Your task to perform on an android device: toggle translation in the chrome app Image 0: 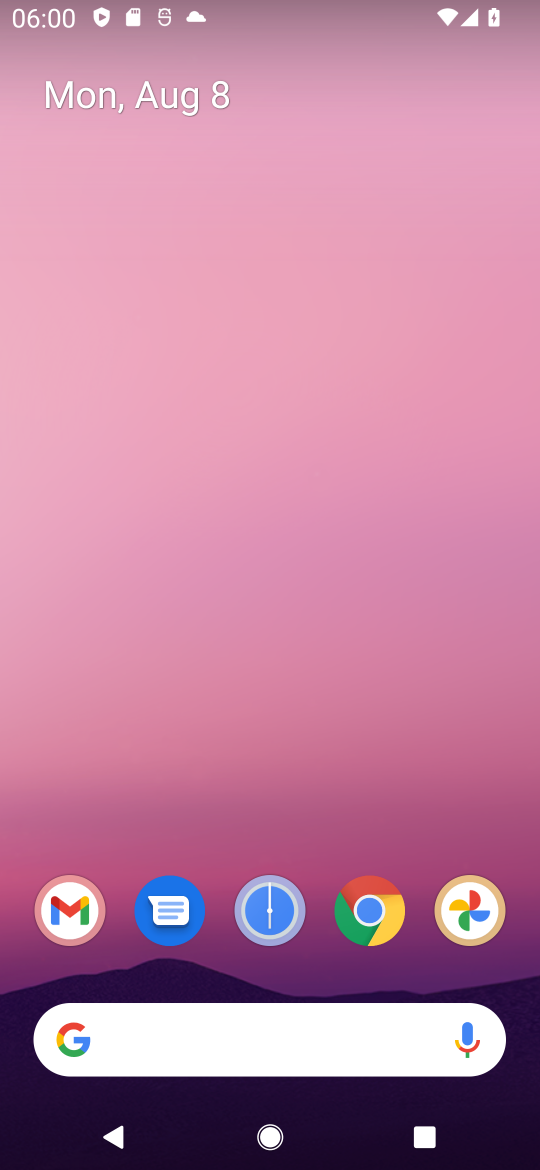
Step 0: click (371, 911)
Your task to perform on an android device: toggle translation in the chrome app Image 1: 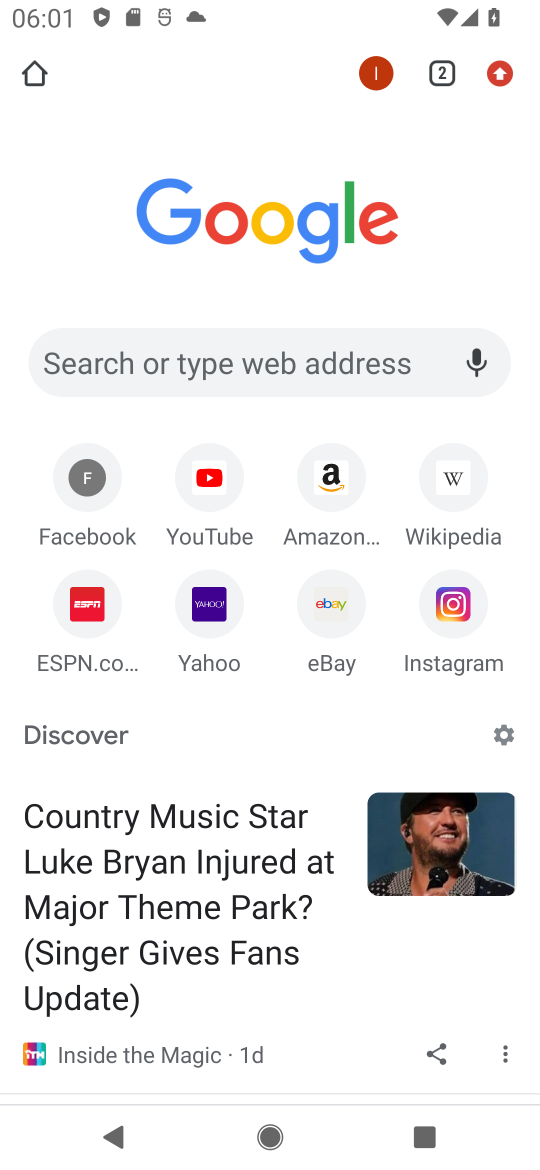
Step 1: click (499, 76)
Your task to perform on an android device: toggle translation in the chrome app Image 2: 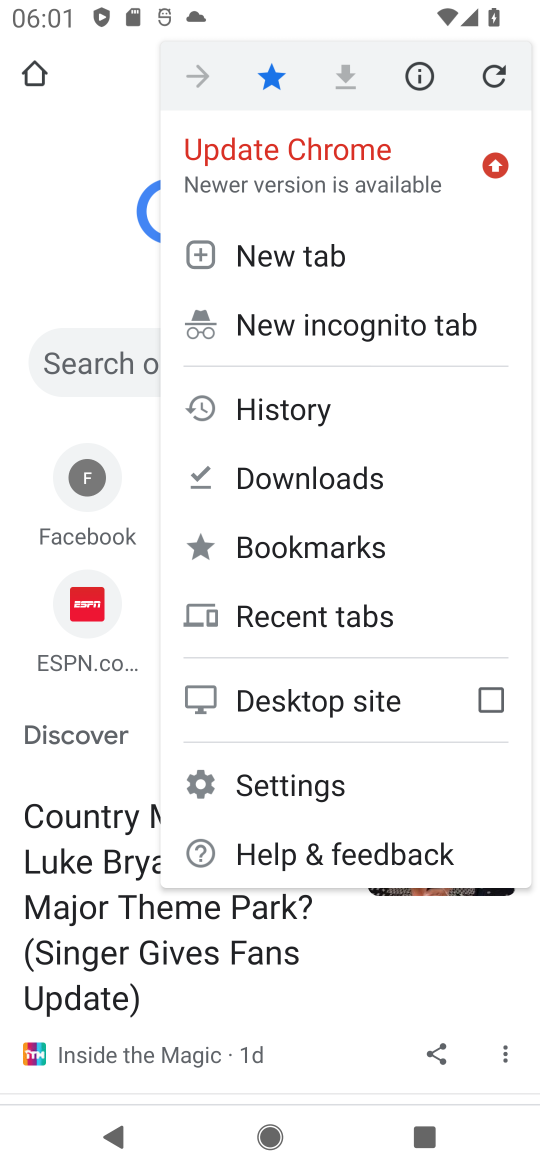
Step 2: click (281, 783)
Your task to perform on an android device: toggle translation in the chrome app Image 3: 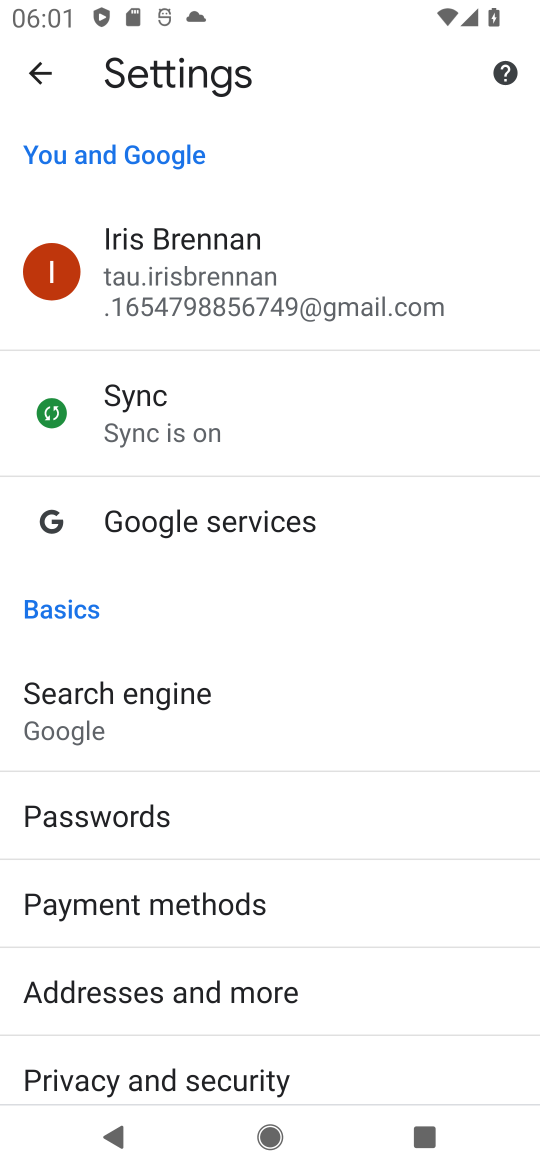
Step 3: drag from (168, 957) to (271, 798)
Your task to perform on an android device: toggle translation in the chrome app Image 4: 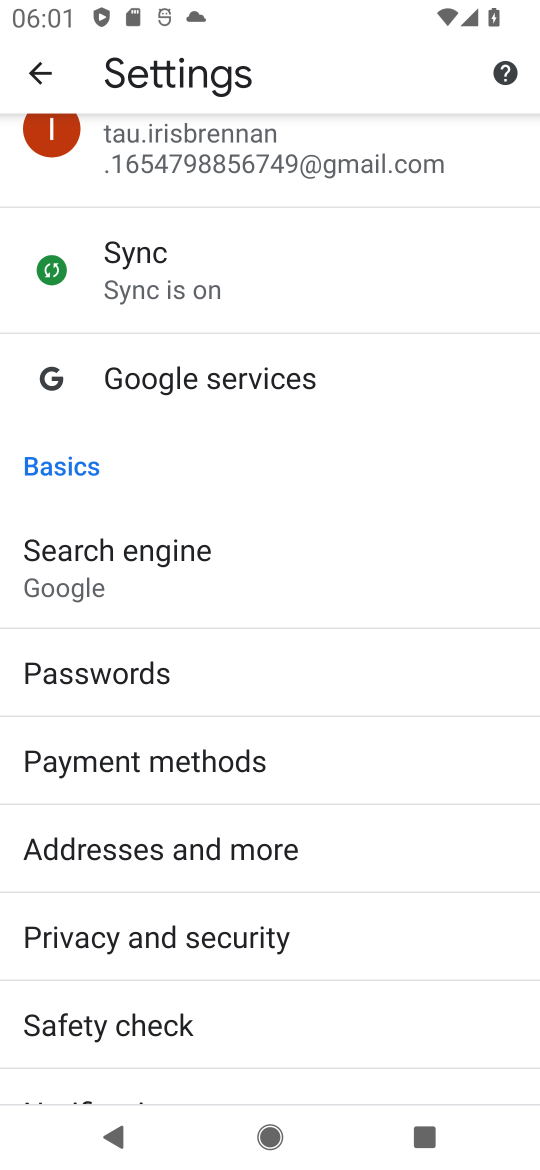
Step 4: drag from (139, 991) to (206, 877)
Your task to perform on an android device: toggle translation in the chrome app Image 5: 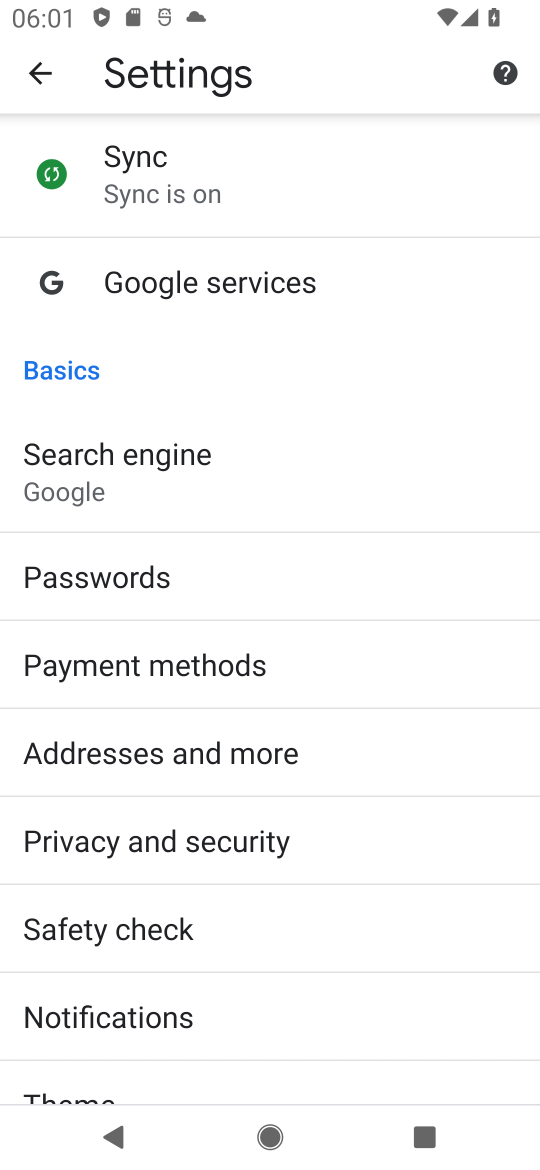
Step 5: drag from (133, 962) to (247, 818)
Your task to perform on an android device: toggle translation in the chrome app Image 6: 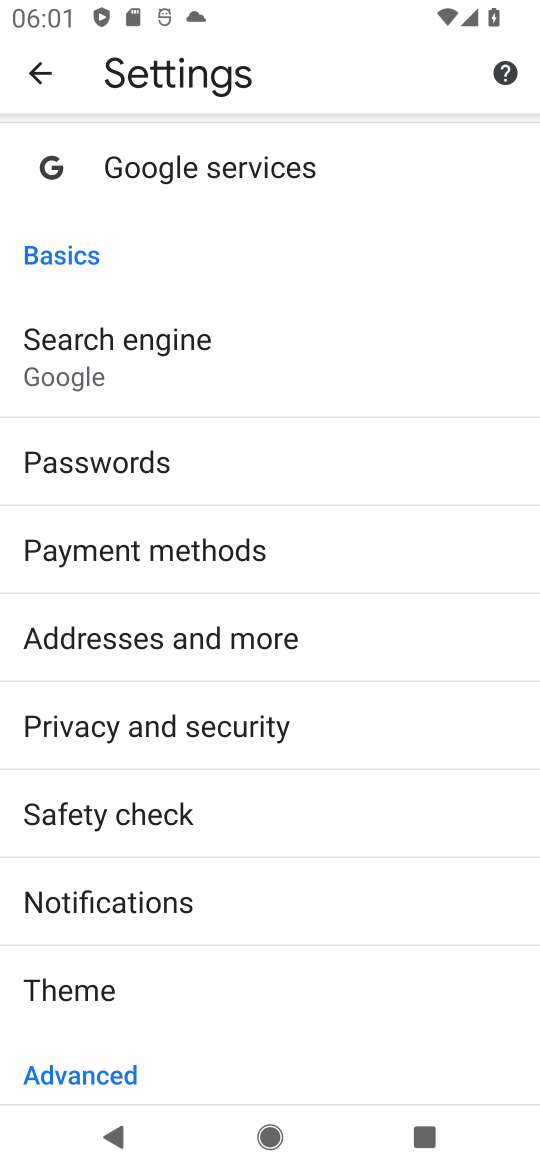
Step 6: drag from (137, 952) to (263, 798)
Your task to perform on an android device: toggle translation in the chrome app Image 7: 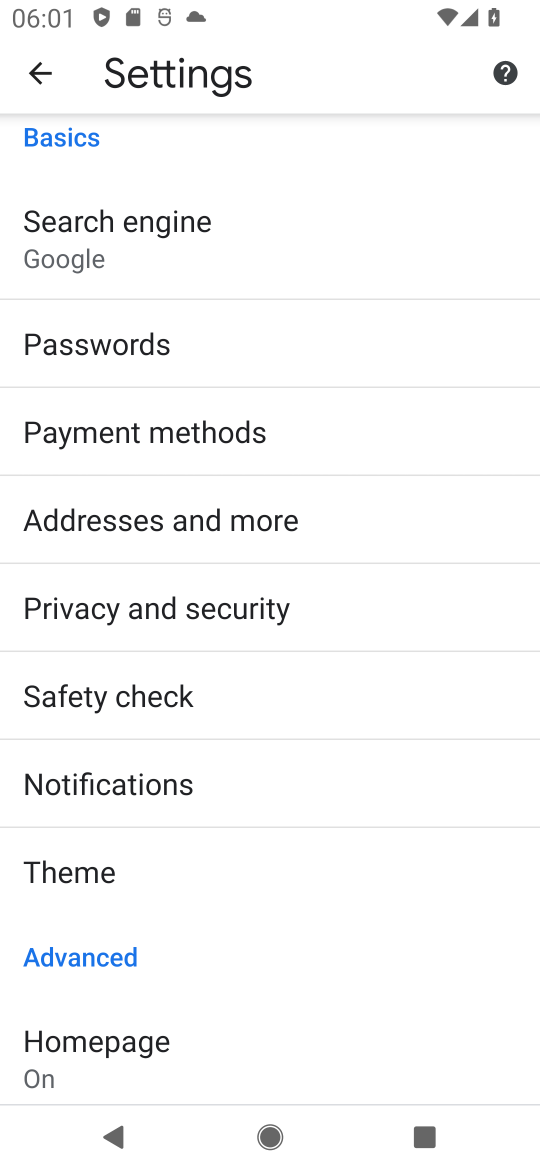
Step 7: drag from (152, 998) to (244, 852)
Your task to perform on an android device: toggle translation in the chrome app Image 8: 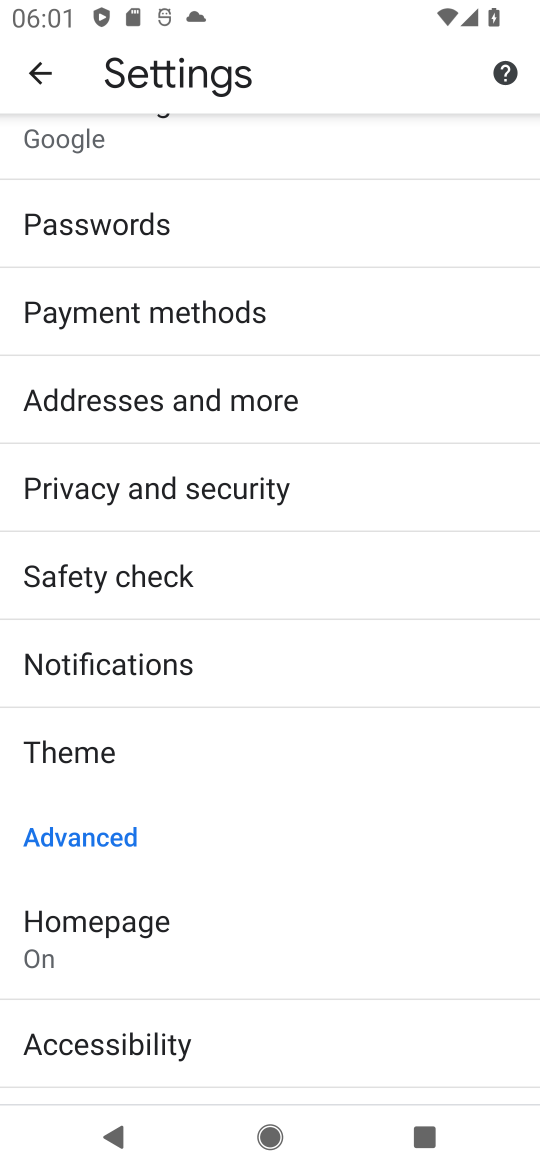
Step 8: drag from (142, 1016) to (266, 855)
Your task to perform on an android device: toggle translation in the chrome app Image 9: 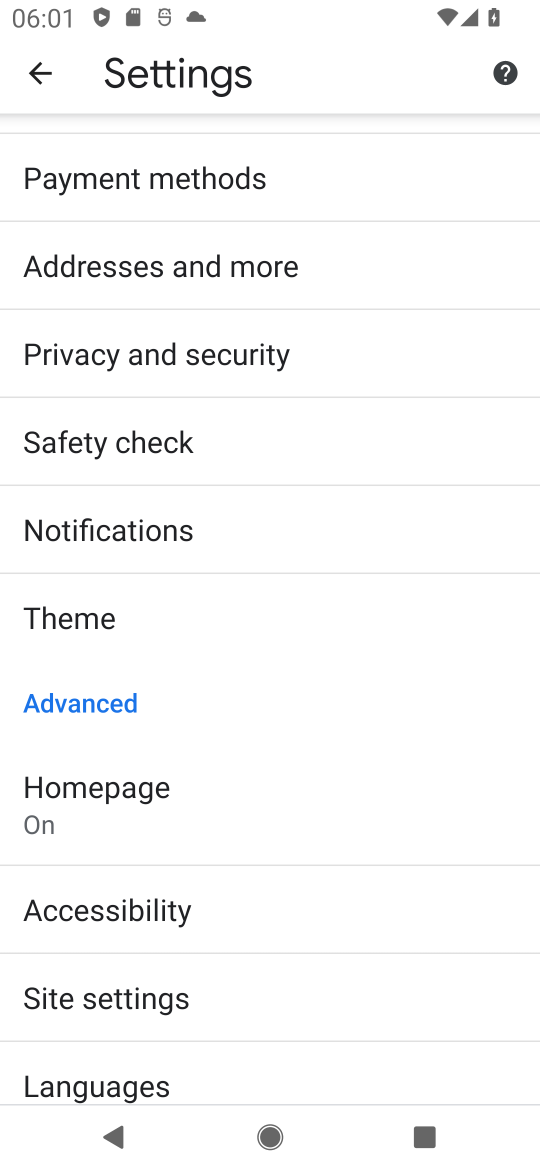
Step 9: drag from (143, 1017) to (271, 863)
Your task to perform on an android device: toggle translation in the chrome app Image 10: 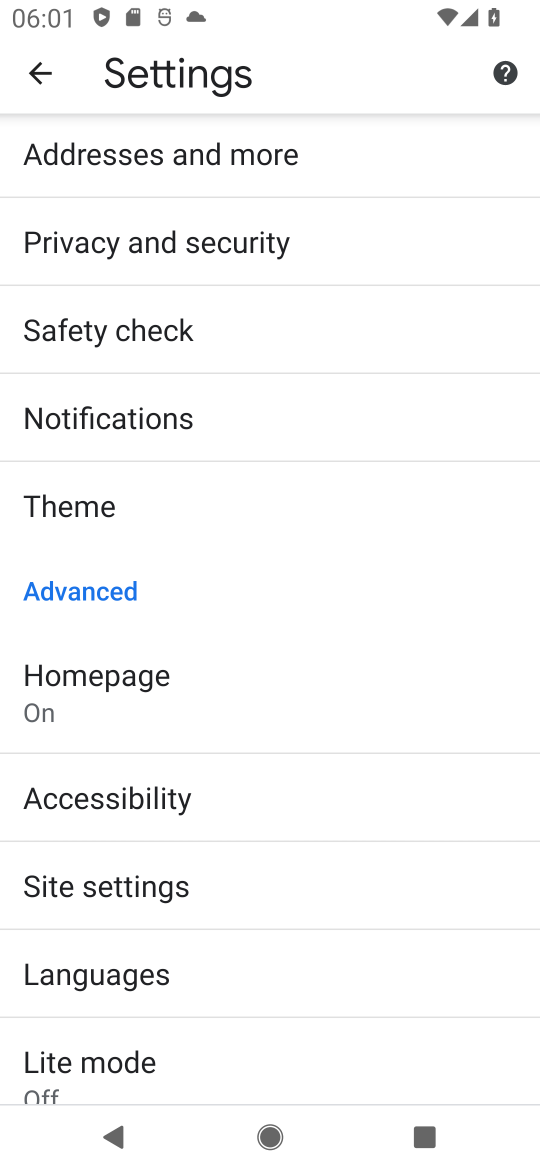
Step 10: drag from (160, 993) to (266, 833)
Your task to perform on an android device: toggle translation in the chrome app Image 11: 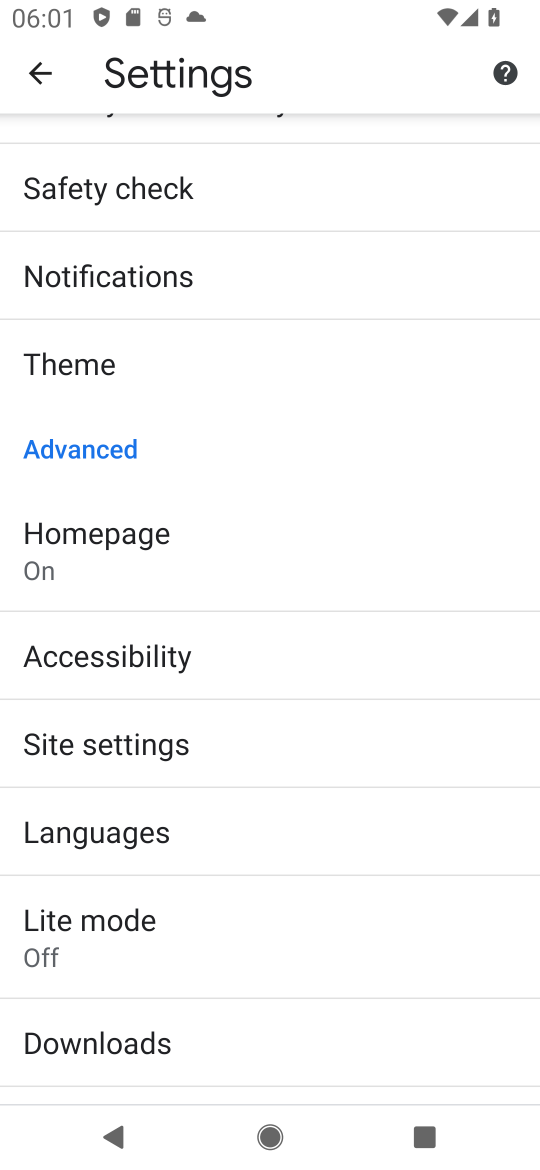
Step 11: drag from (173, 958) to (291, 803)
Your task to perform on an android device: toggle translation in the chrome app Image 12: 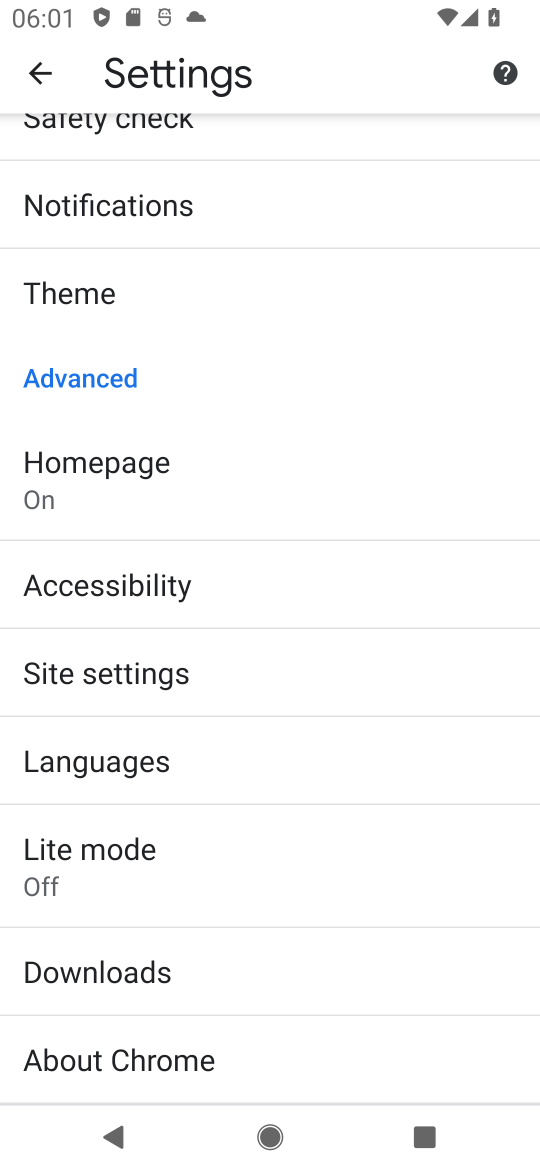
Step 12: click (166, 766)
Your task to perform on an android device: toggle translation in the chrome app Image 13: 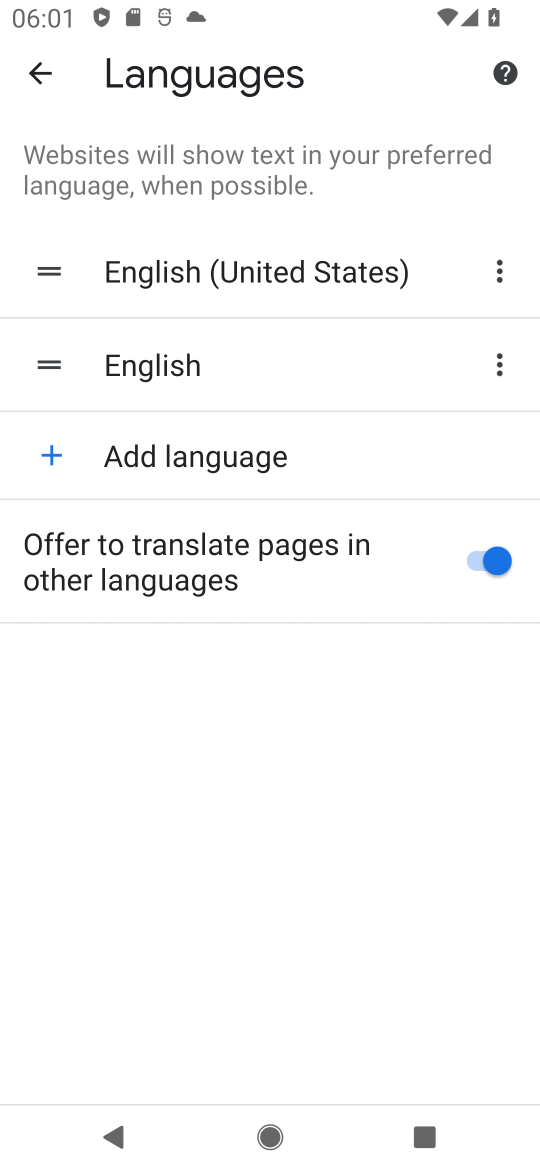
Step 13: click (475, 572)
Your task to perform on an android device: toggle translation in the chrome app Image 14: 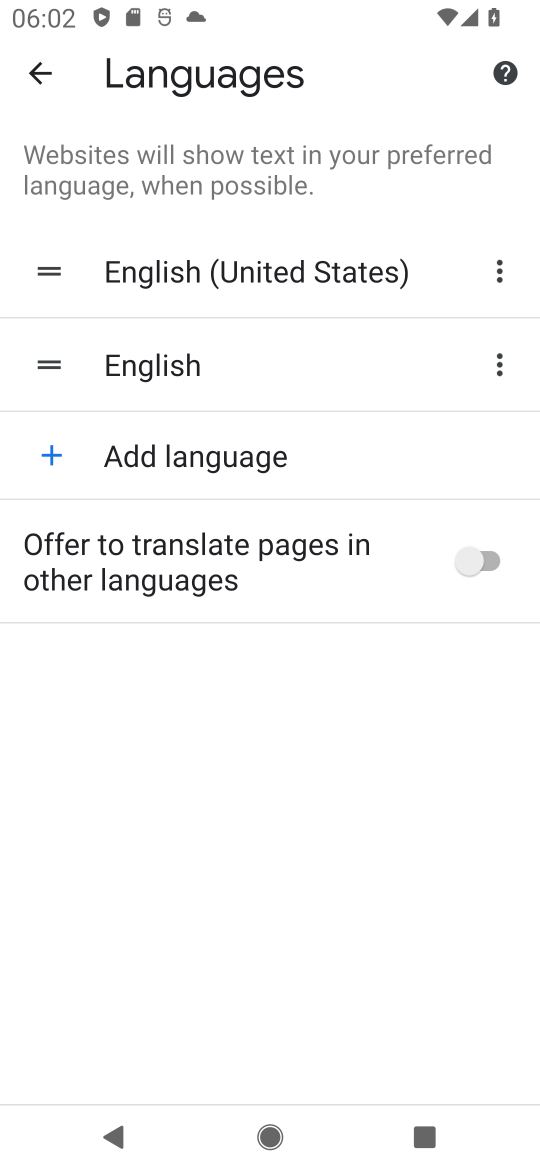
Step 14: task complete